Your task to perform on an android device: Go to battery settings Image 0: 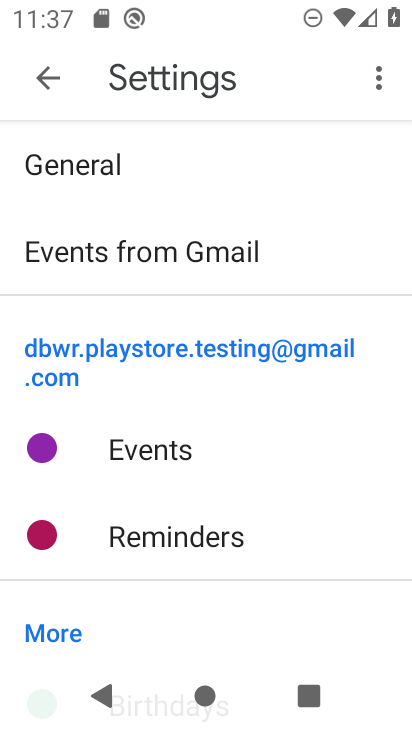
Step 0: press home button
Your task to perform on an android device: Go to battery settings Image 1: 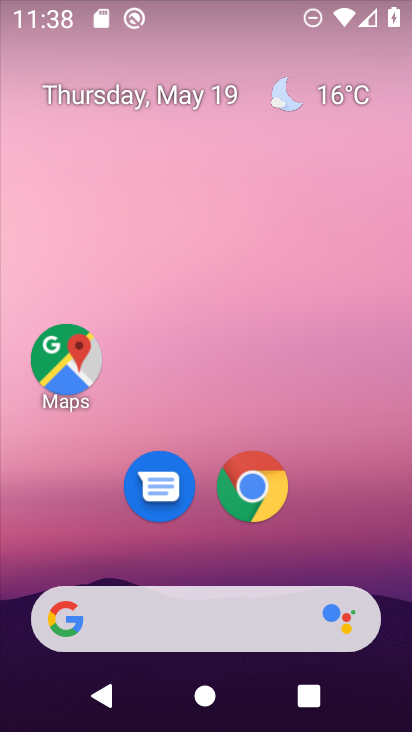
Step 1: drag from (345, 530) to (344, 68)
Your task to perform on an android device: Go to battery settings Image 2: 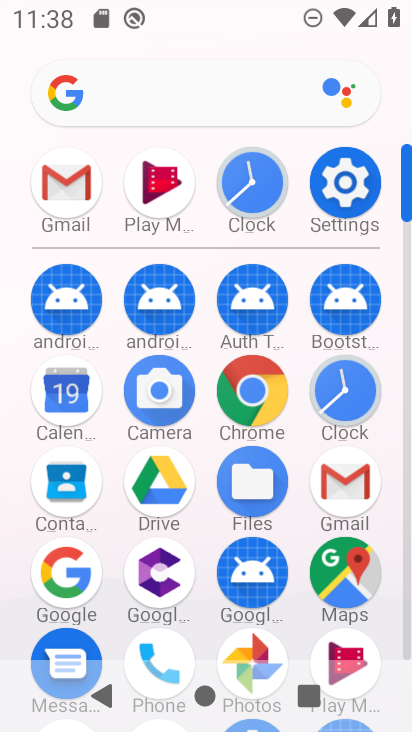
Step 2: click (342, 226)
Your task to perform on an android device: Go to battery settings Image 3: 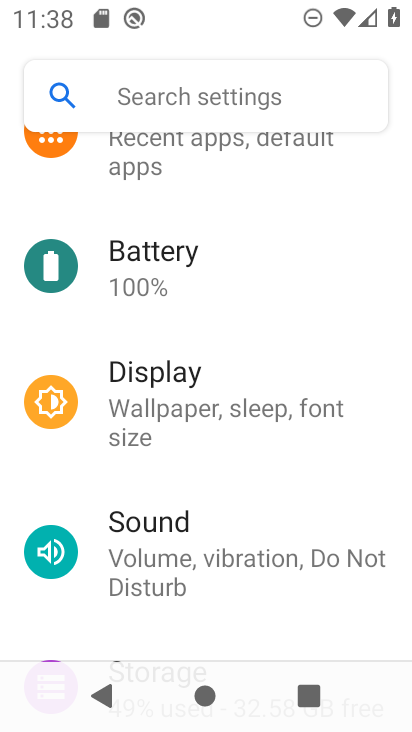
Step 3: click (188, 265)
Your task to perform on an android device: Go to battery settings Image 4: 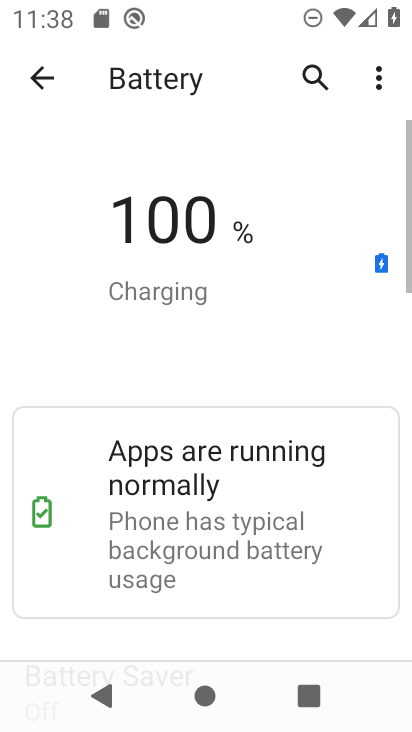
Step 4: task complete